Your task to perform on an android device: turn off sleep mode Image 0: 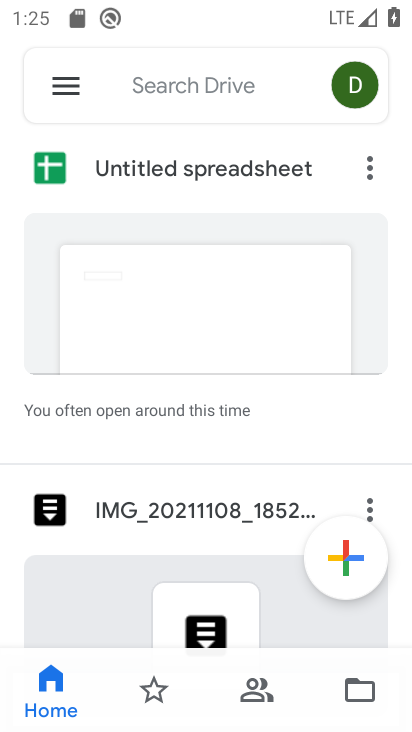
Step 0: press home button
Your task to perform on an android device: turn off sleep mode Image 1: 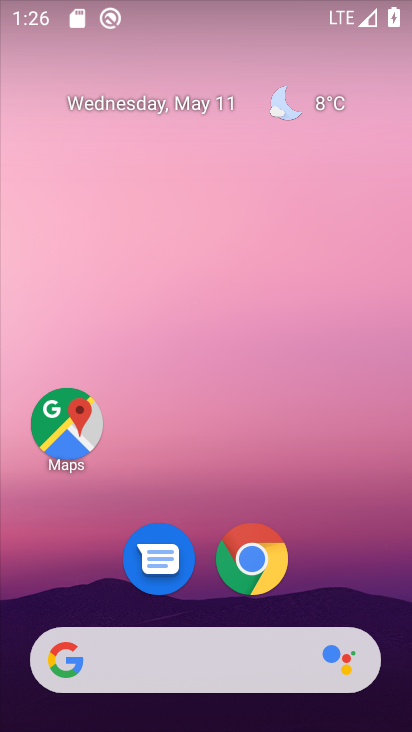
Step 1: drag from (225, 726) to (215, 295)
Your task to perform on an android device: turn off sleep mode Image 2: 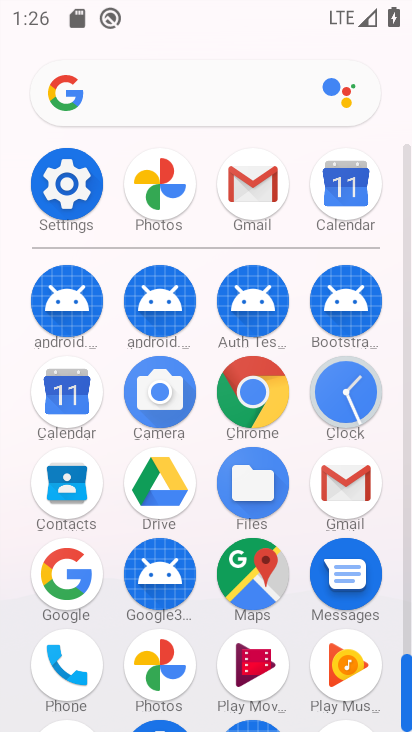
Step 2: click (58, 178)
Your task to perform on an android device: turn off sleep mode Image 3: 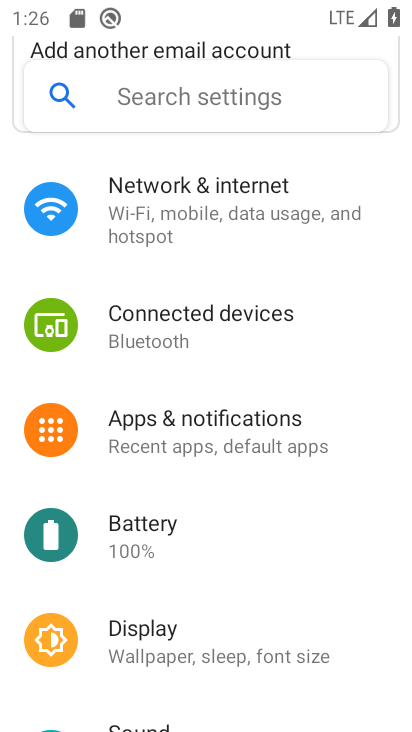
Step 3: task complete